Your task to perform on an android device: check the backup settings in the google photos Image 0: 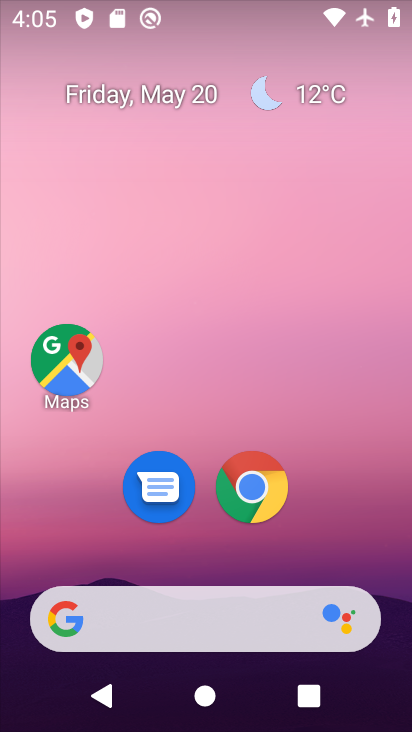
Step 0: drag from (301, 535) to (252, 30)
Your task to perform on an android device: check the backup settings in the google photos Image 1: 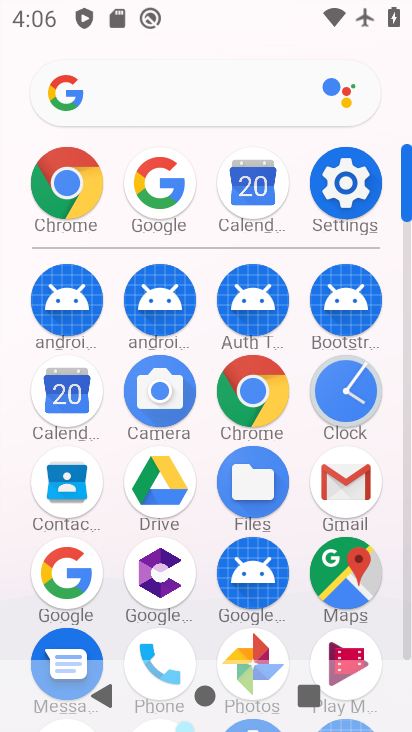
Step 1: click (256, 647)
Your task to perform on an android device: check the backup settings in the google photos Image 2: 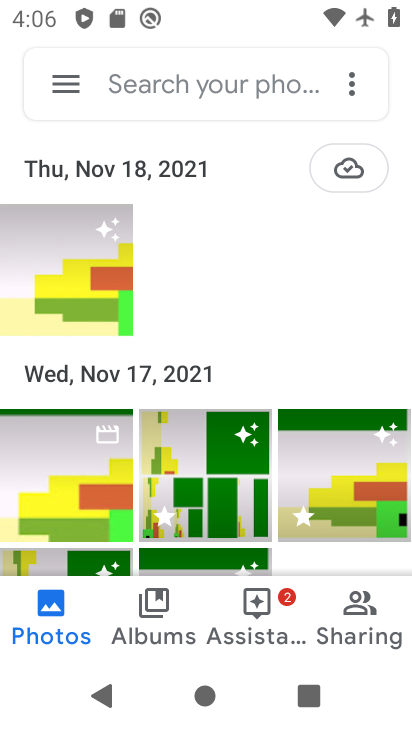
Step 2: click (69, 79)
Your task to perform on an android device: check the backup settings in the google photos Image 3: 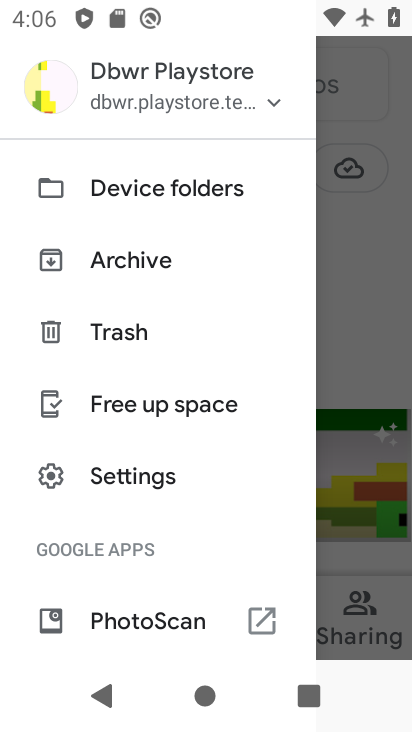
Step 3: click (129, 485)
Your task to perform on an android device: check the backup settings in the google photos Image 4: 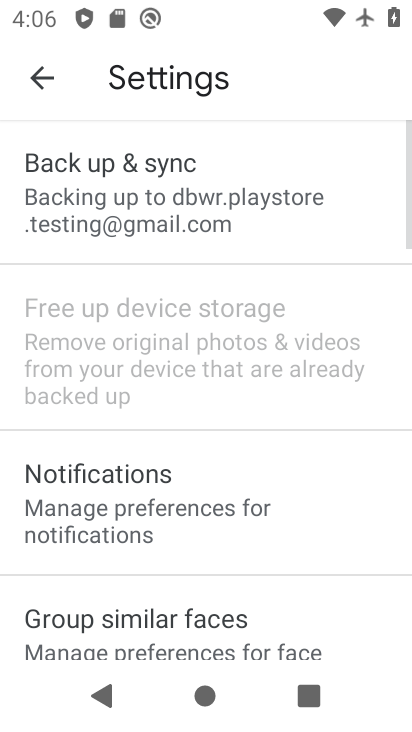
Step 4: click (114, 166)
Your task to perform on an android device: check the backup settings in the google photos Image 5: 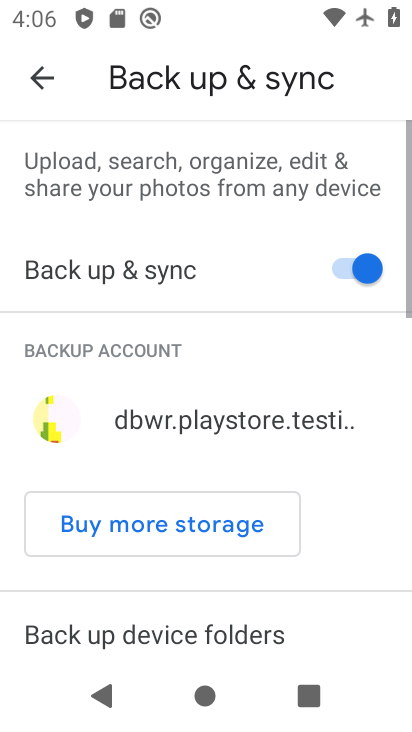
Step 5: task complete